Your task to perform on an android device: open app "WhatsApp Messenger" Image 0: 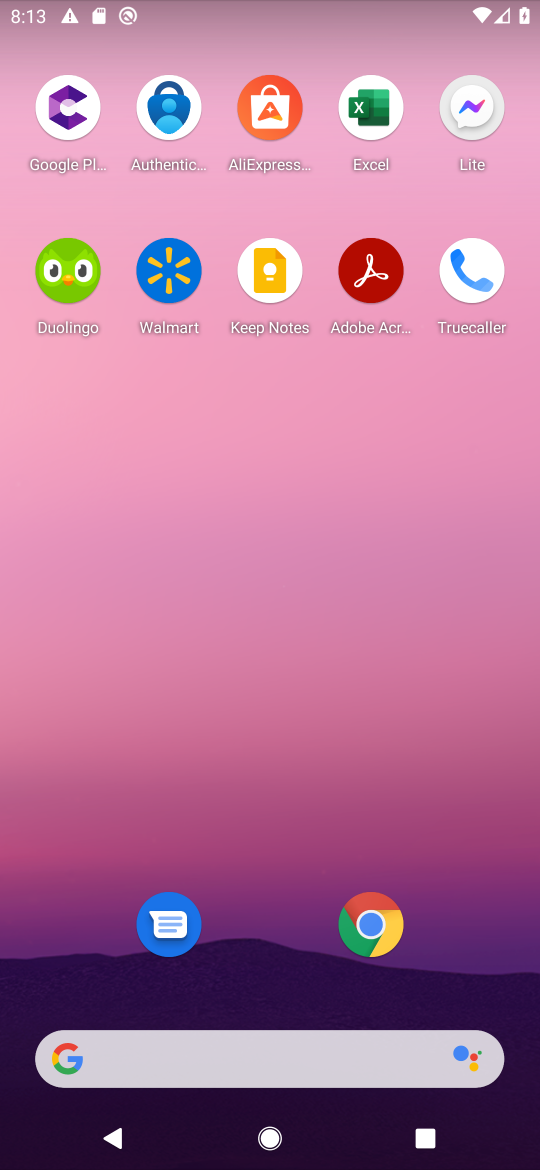
Step 0: drag from (260, 1038) to (254, 752)
Your task to perform on an android device: open app "WhatsApp Messenger" Image 1: 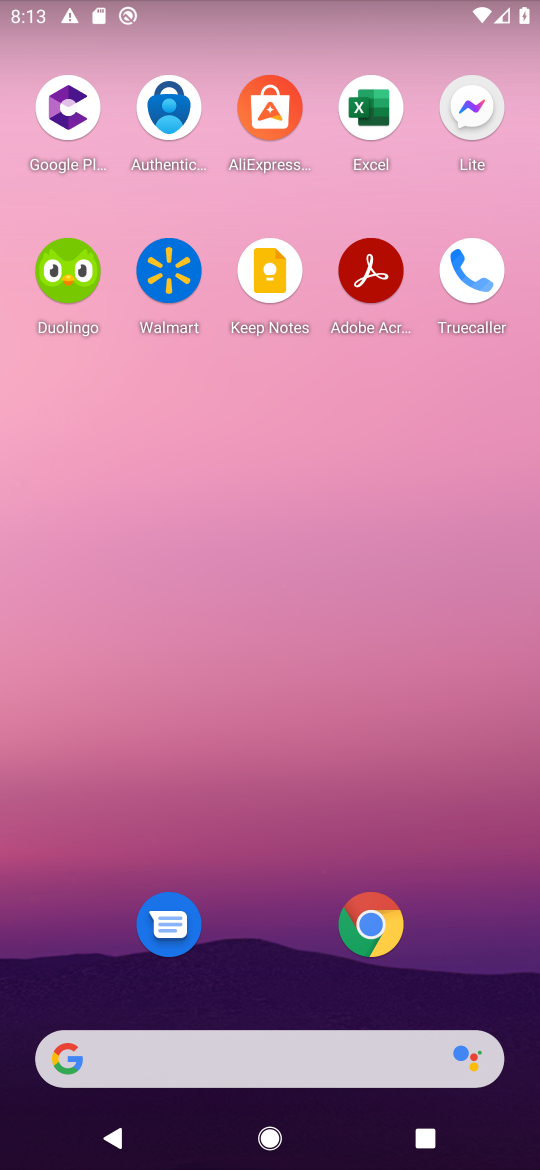
Step 1: task complete